Your task to perform on an android device: Open settings Image 0: 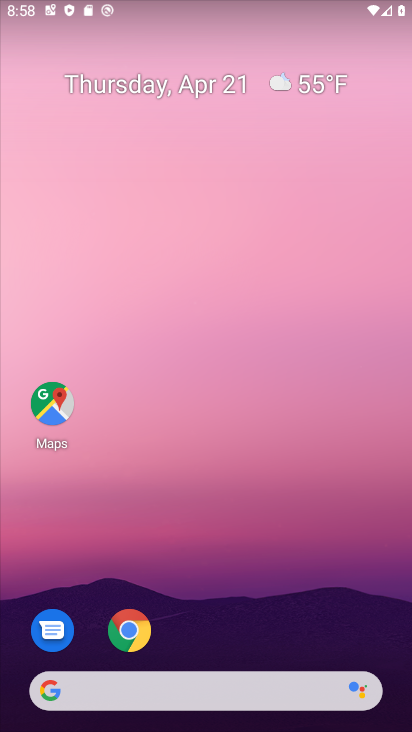
Step 0: drag from (206, 663) to (287, 52)
Your task to perform on an android device: Open settings Image 1: 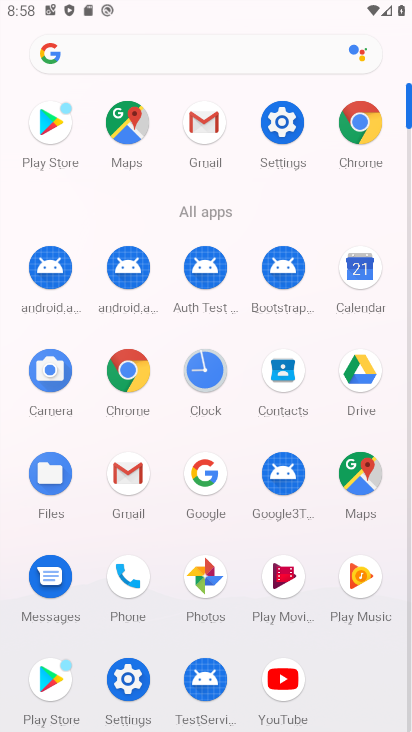
Step 1: click (121, 679)
Your task to perform on an android device: Open settings Image 2: 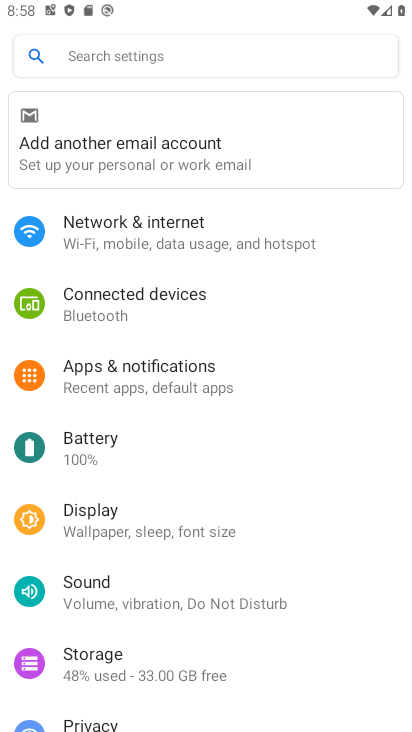
Step 2: task complete